Your task to perform on an android device: Clear all items from cart on newegg.com. Add "usb-c to usb-b" to the cart on newegg.com Image 0: 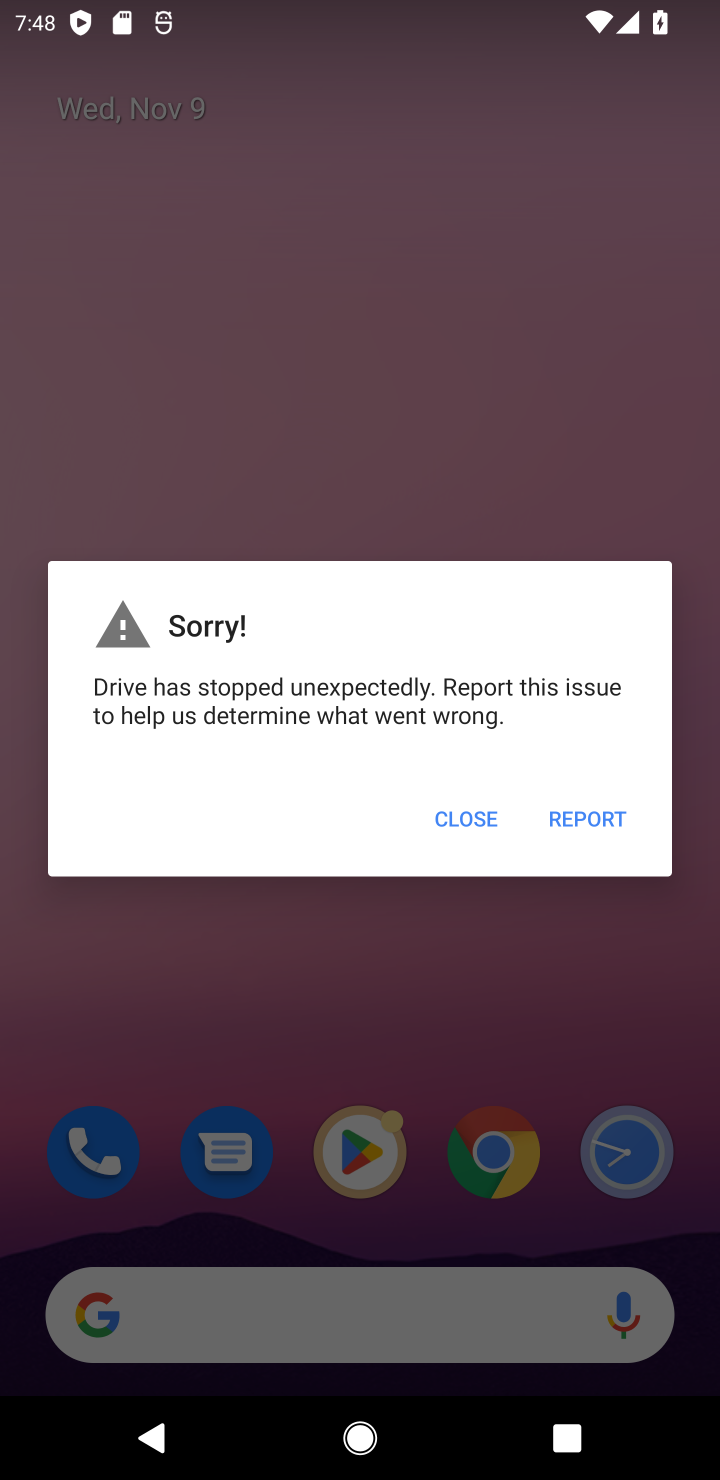
Step 0: press home button
Your task to perform on an android device: Clear all items from cart on newegg.com. Add "usb-c to usb-b" to the cart on newegg.com Image 1: 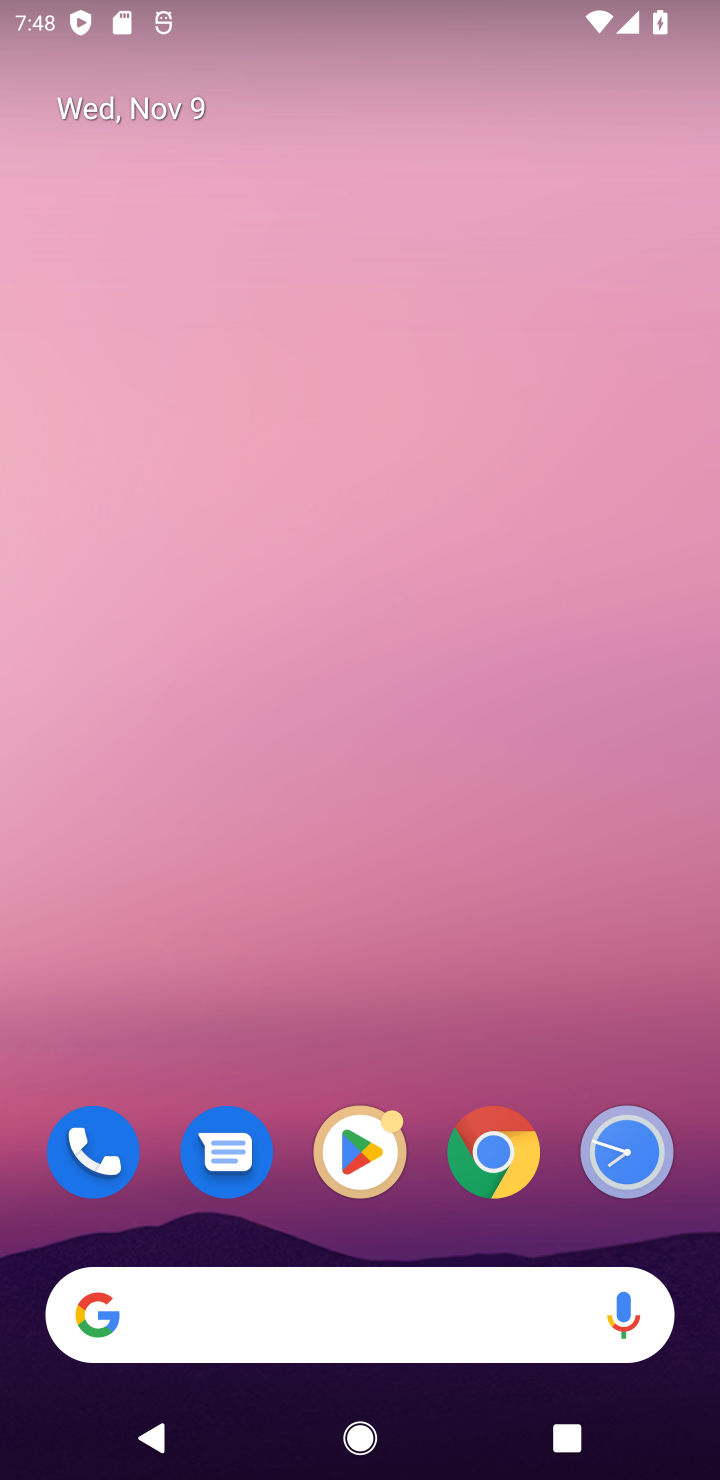
Step 1: click (489, 1150)
Your task to perform on an android device: Clear all items from cart on newegg.com. Add "usb-c to usb-b" to the cart on newegg.com Image 2: 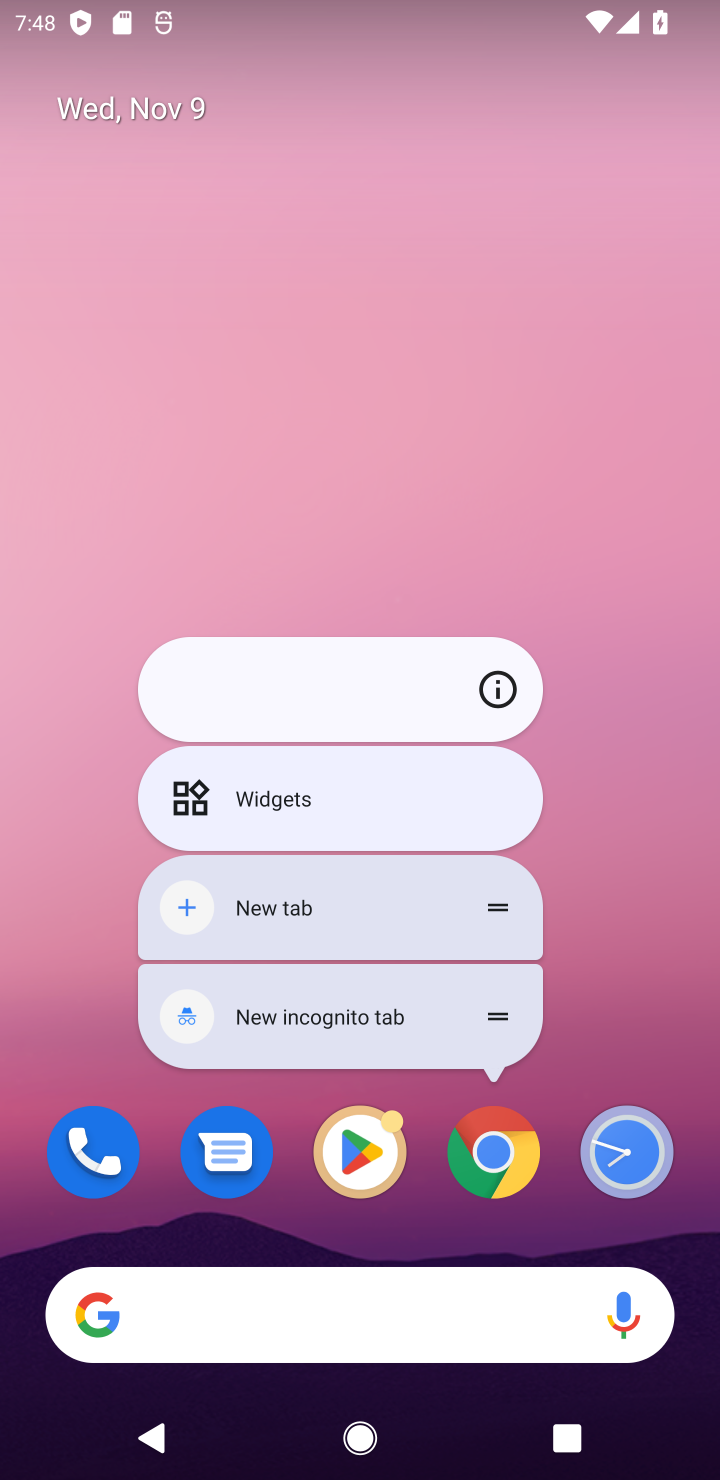
Step 2: click (489, 1159)
Your task to perform on an android device: Clear all items from cart on newegg.com. Add "usb-c to usb-b" to the cart on newegg.com Image 3: 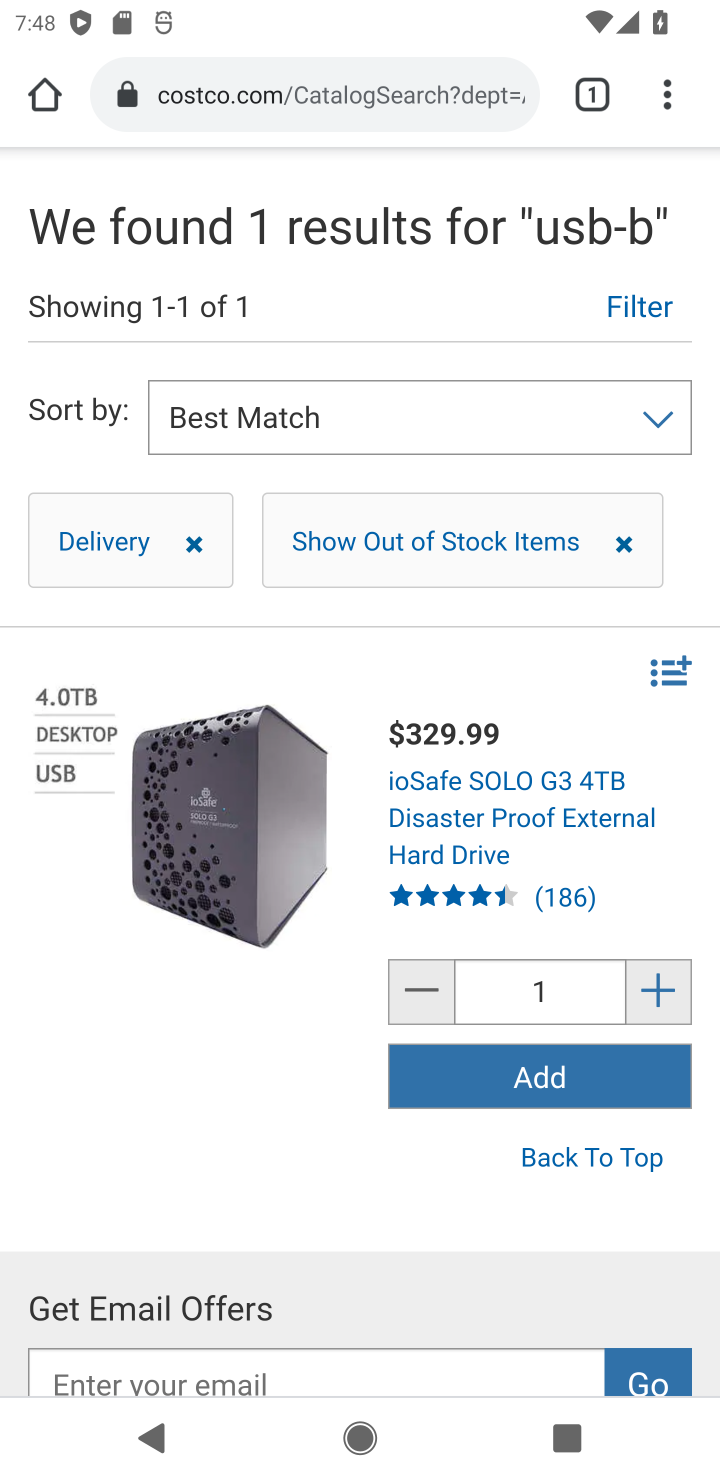
Step 3: click (408, 89)
Your task to perform on an android device: Clear all items from cart on newegg.com. Add "usb-c to usb-b" to the cart on newegg.com Image 4: 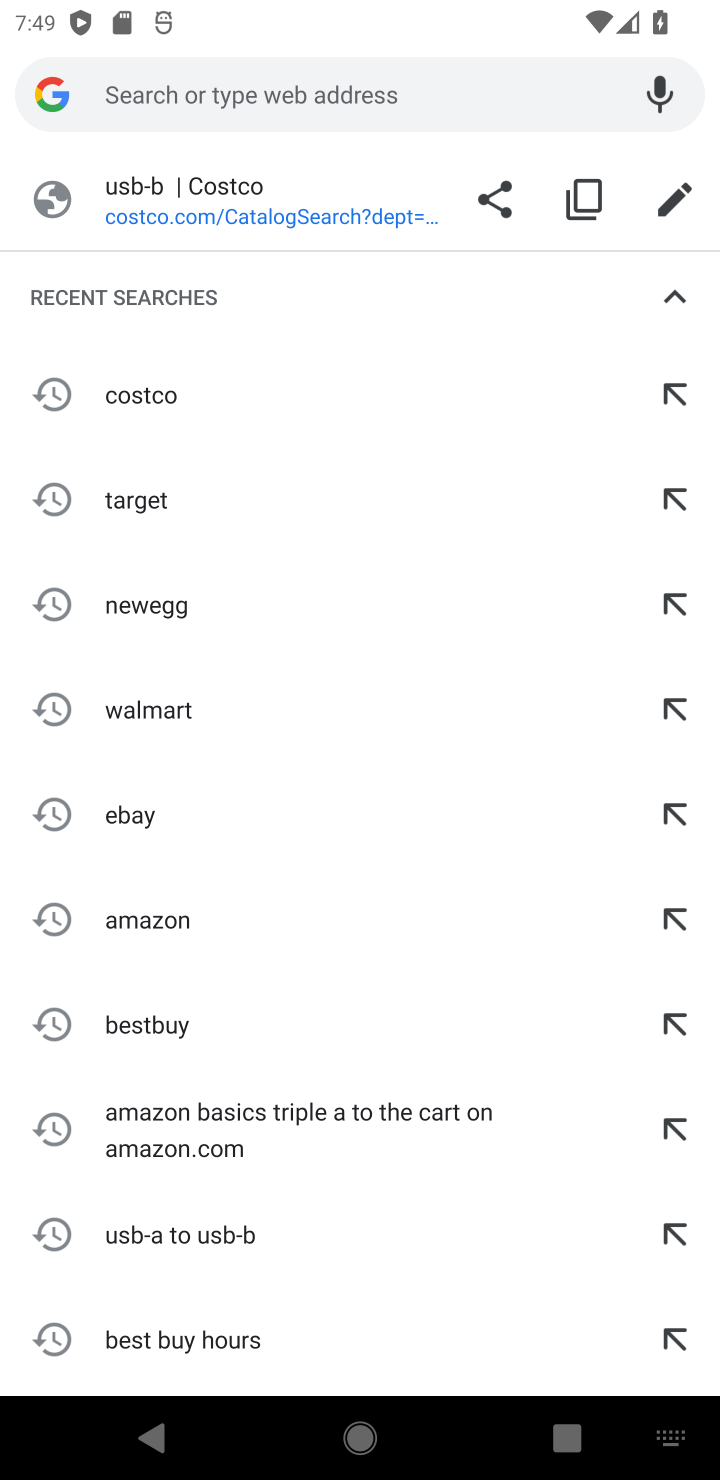
Step 4: click (152, 603)
Your task to perform on an android device: Clear all items from cart on newegg.com. Add "usb-c to usb-b" to the cart on newegg.com Image 5: 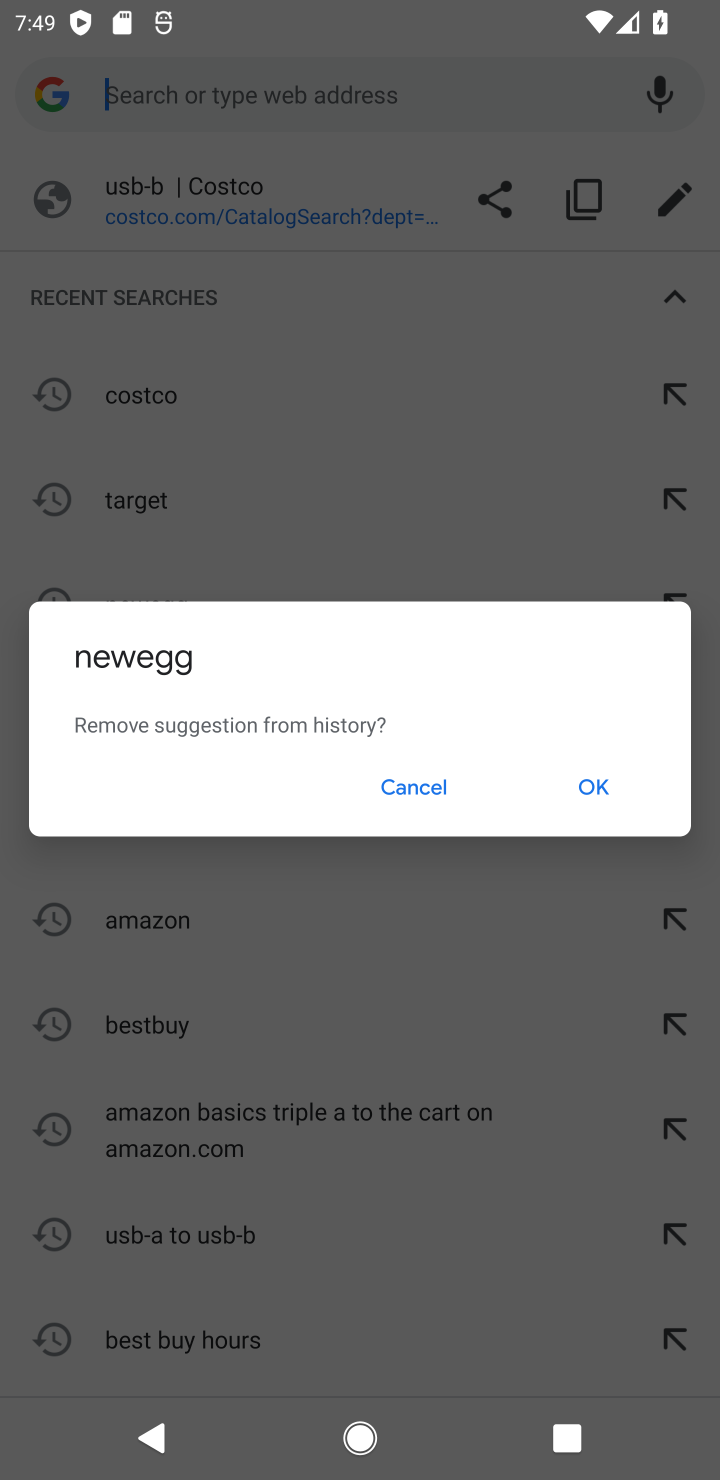
Step 5: click (419, 796)
Your task to perform on an android device: Clear all items from cart on newegg.com. Add "usb-c to usb-b" to the cart on newegg.com Image 6: 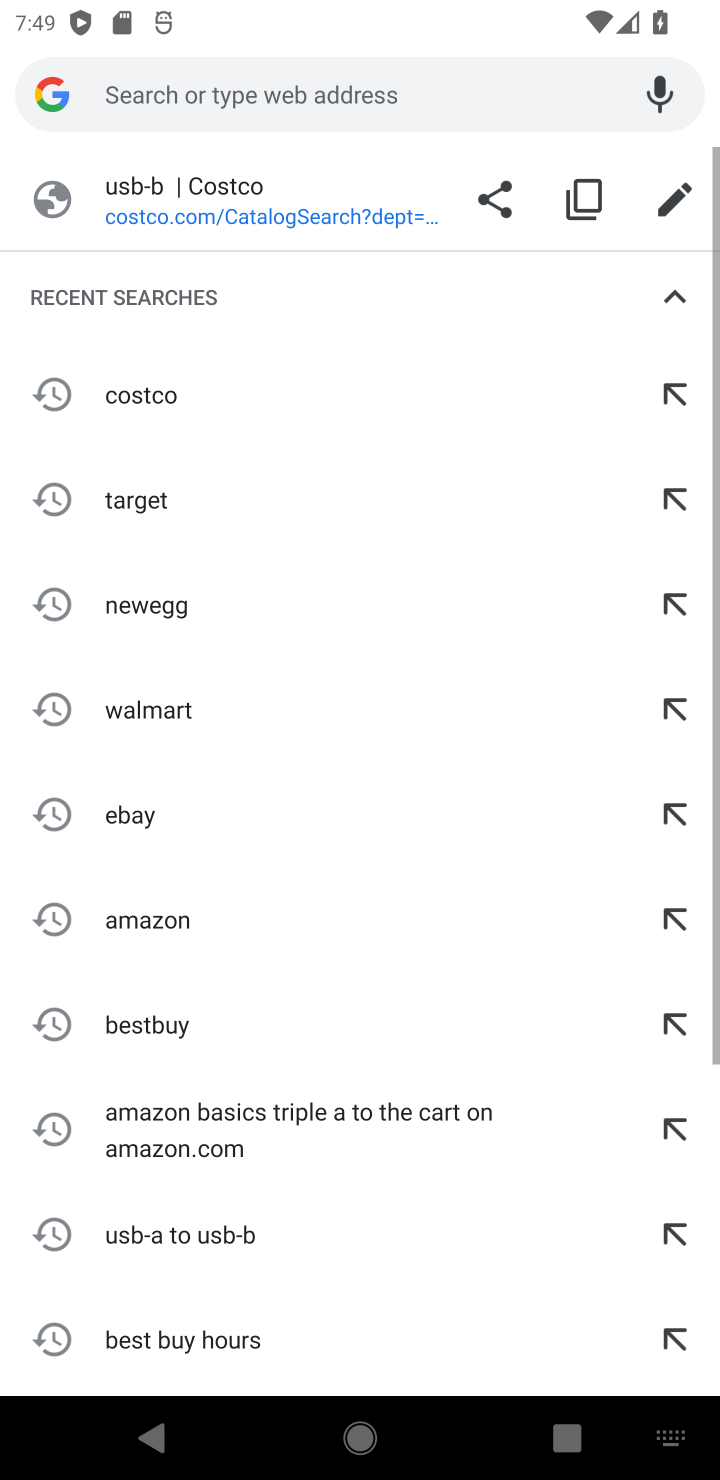
Step 6: click (130, 598)
Your task to perform on an android device: Clear all items from cart on newegg.com. Add "usb-c to usb-b" to the cart on newegg.com Image 7: 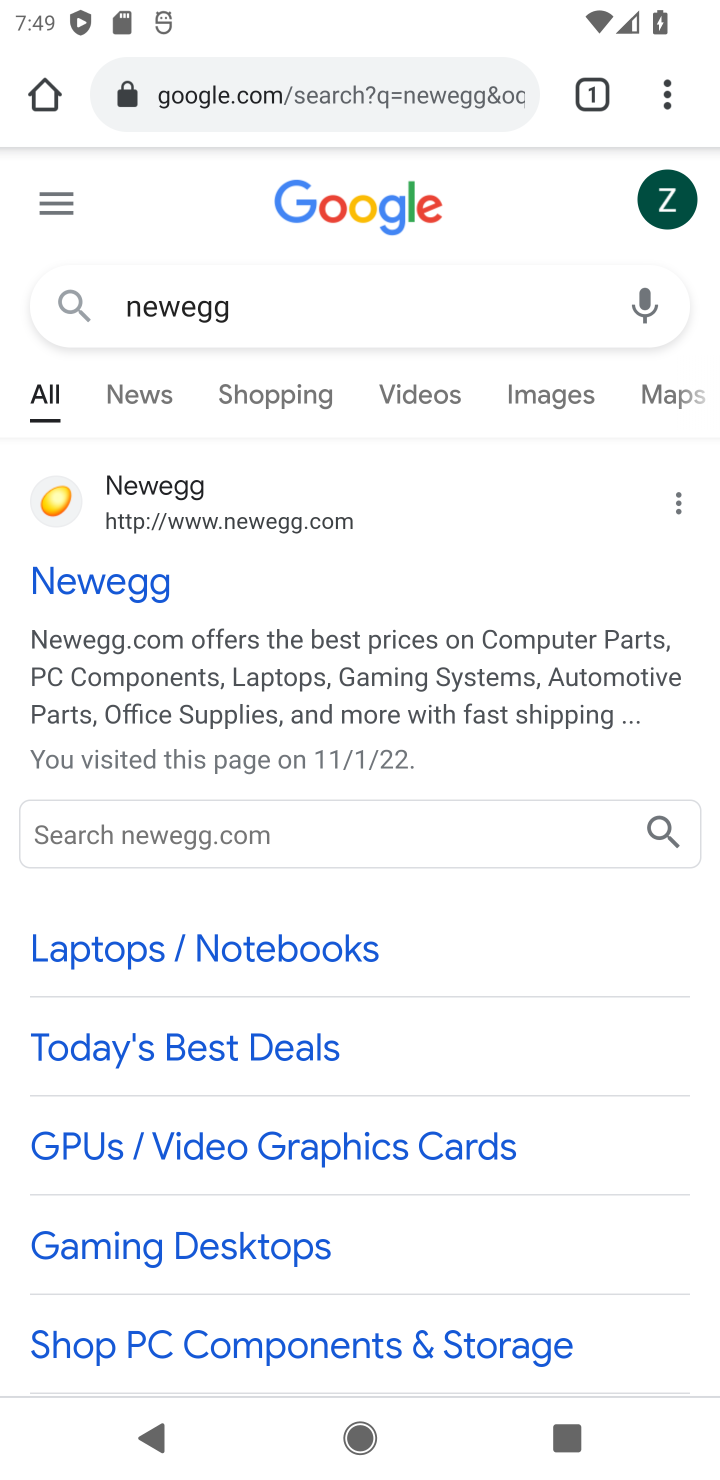
Step 7: click (110, 569)
Your task to perform on an android device: Clear all items from cart on newegg.com. Add "usb-c to usb-b" to the cart on newegg.com Image 8: 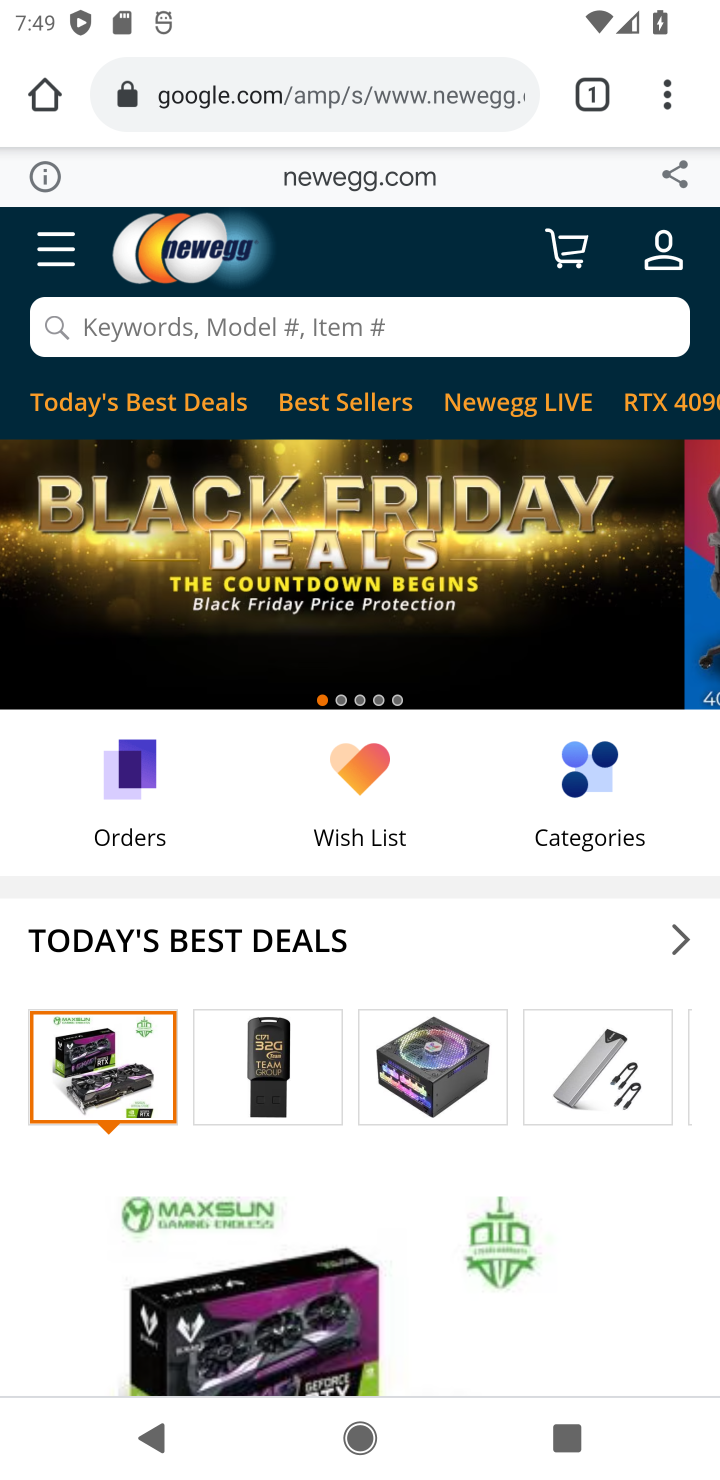
Step 8: click (280, 303)
Your task to perform on an android device: Clear all items from cart on newegg.com. Add "usb-c to usb-b" to the cart on newegg.com Image 9: 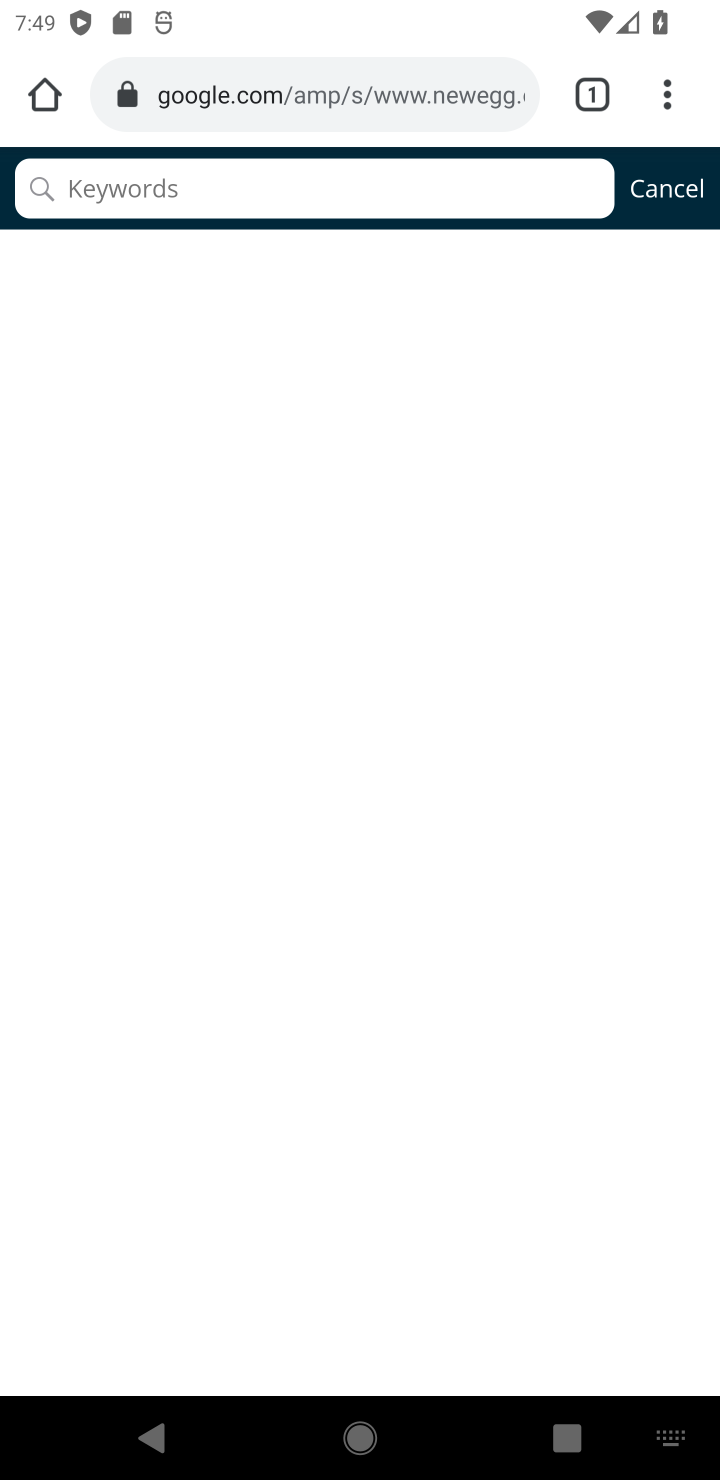
Step 9: type "usb-c to usb-b"
Your task to perform on an android device: Clear all items from cart on newegg.com. Add "usb-c to usb-b" to the cart on newegg.com Image 10: 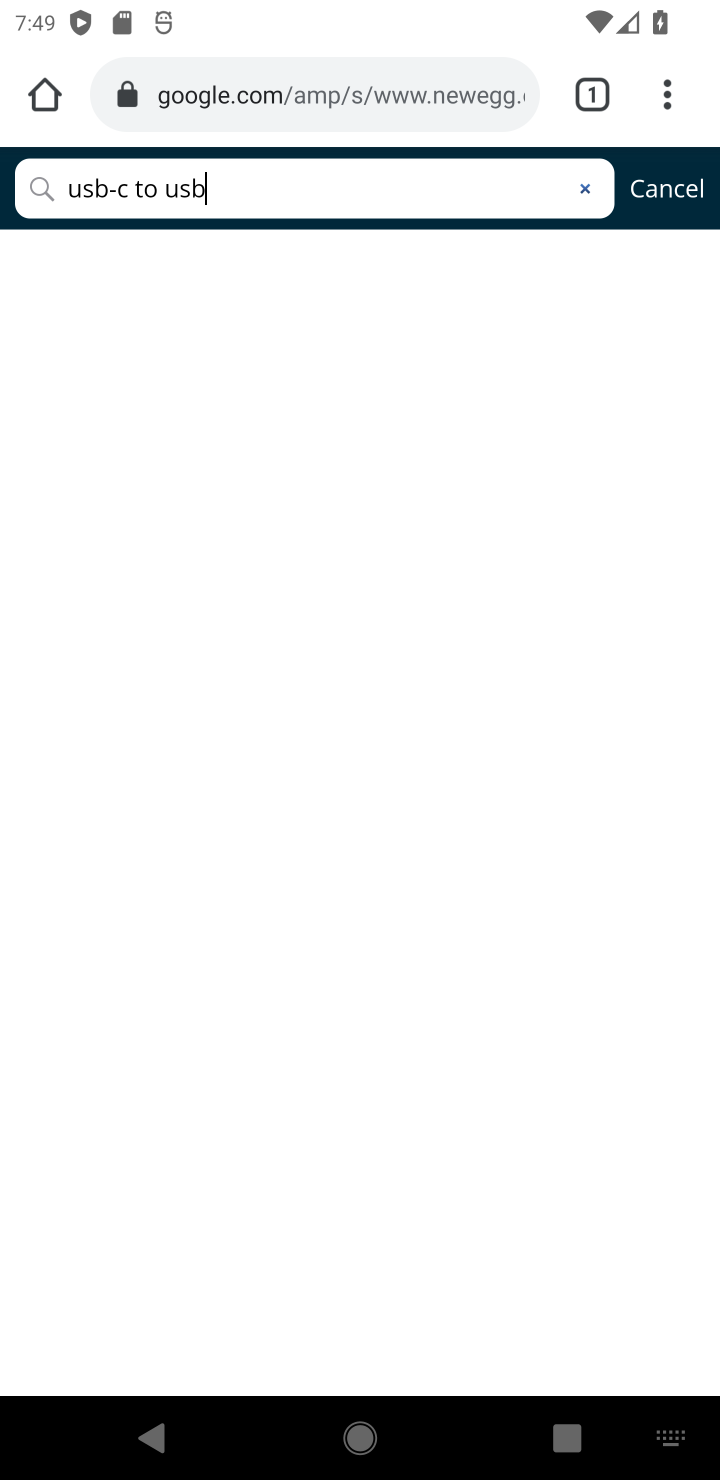
Step 10: press enter
Your task to perform on an android device: Clear all items from cart on newegg.com. Add "usb-c to usb-b" to the cart on newegg.com Image 11: 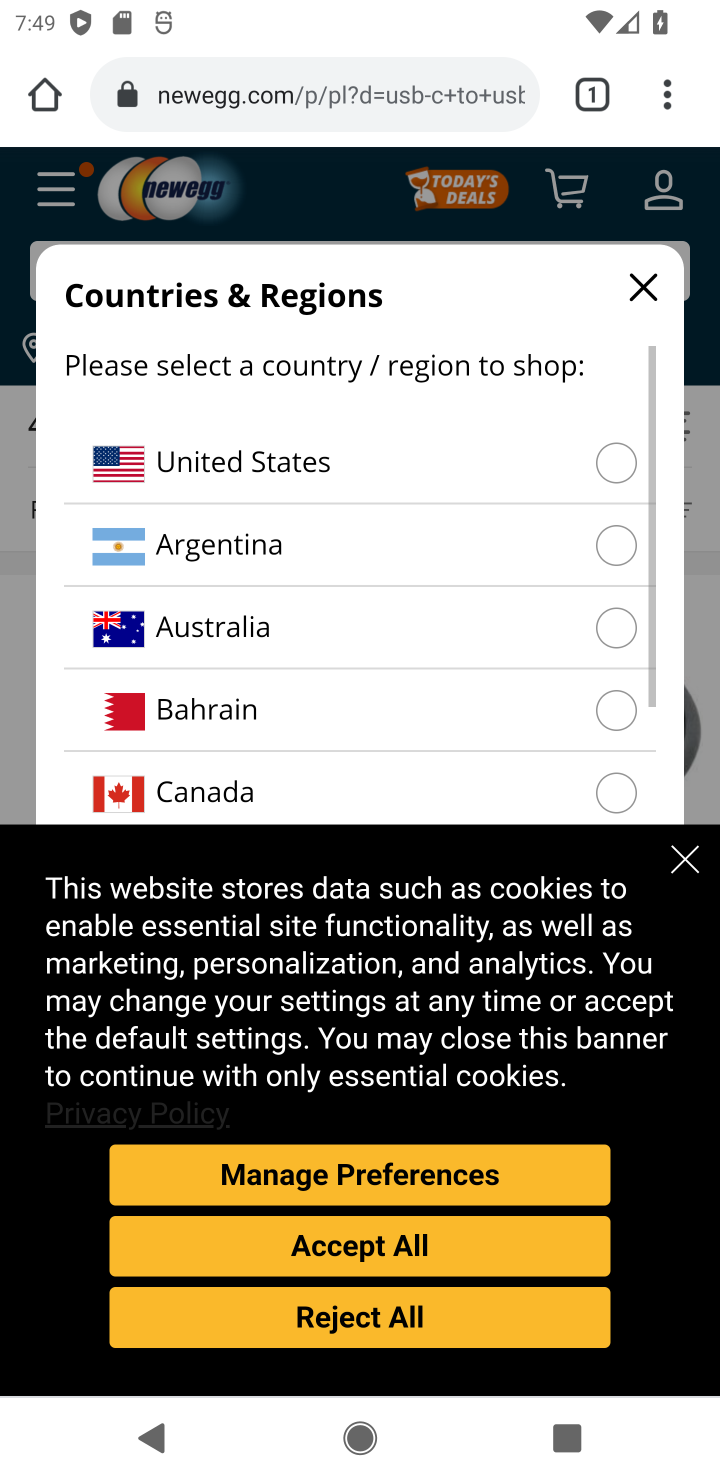
Step 11: click (691, 853)
Your task to perform on an android device: Clear all items from cart on newegg.com. Add "usb-c to usb-b" to the cart on newegg.com Image 12: 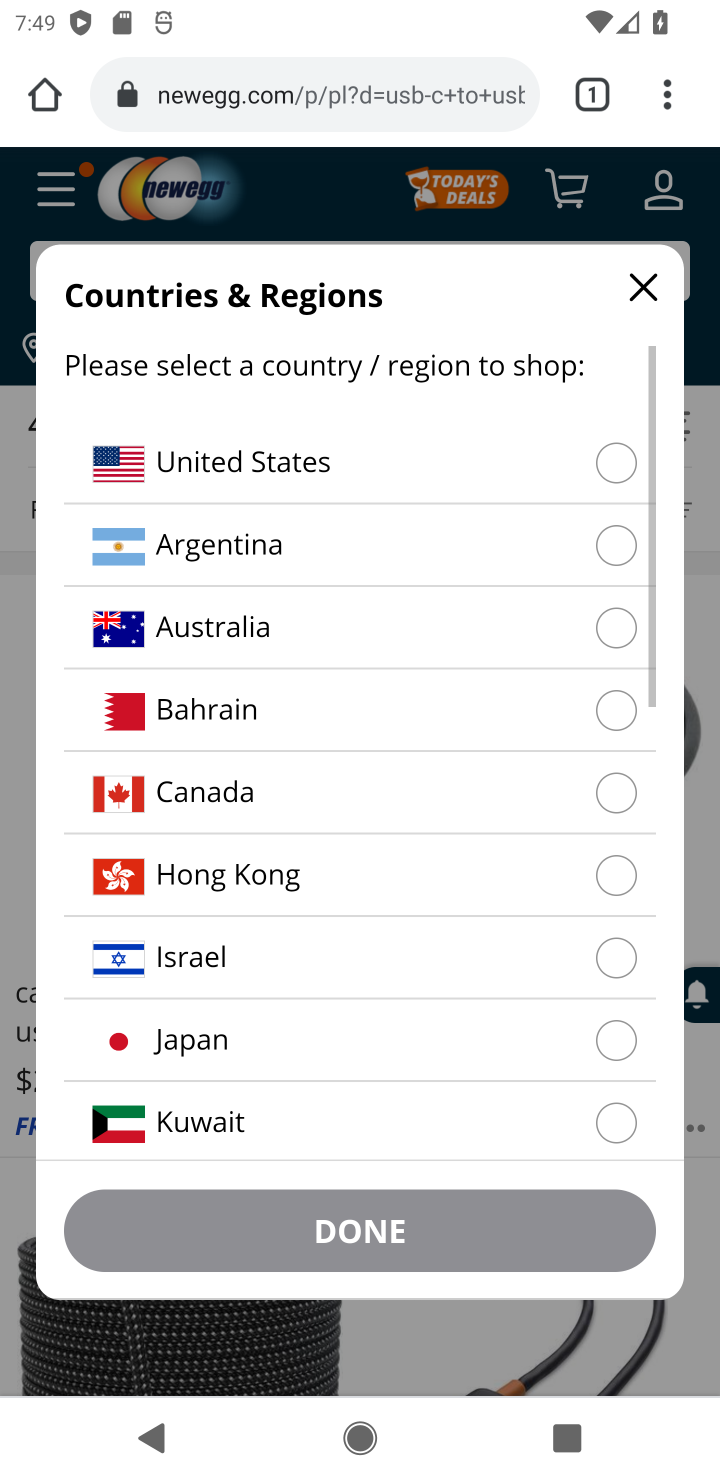
Step 12: click (640, 286)
Your task to perform on an android device: Clear all items from cart on newegg.com. Add "usb-c to usb-b" to the cart on newegg.com Image 13: 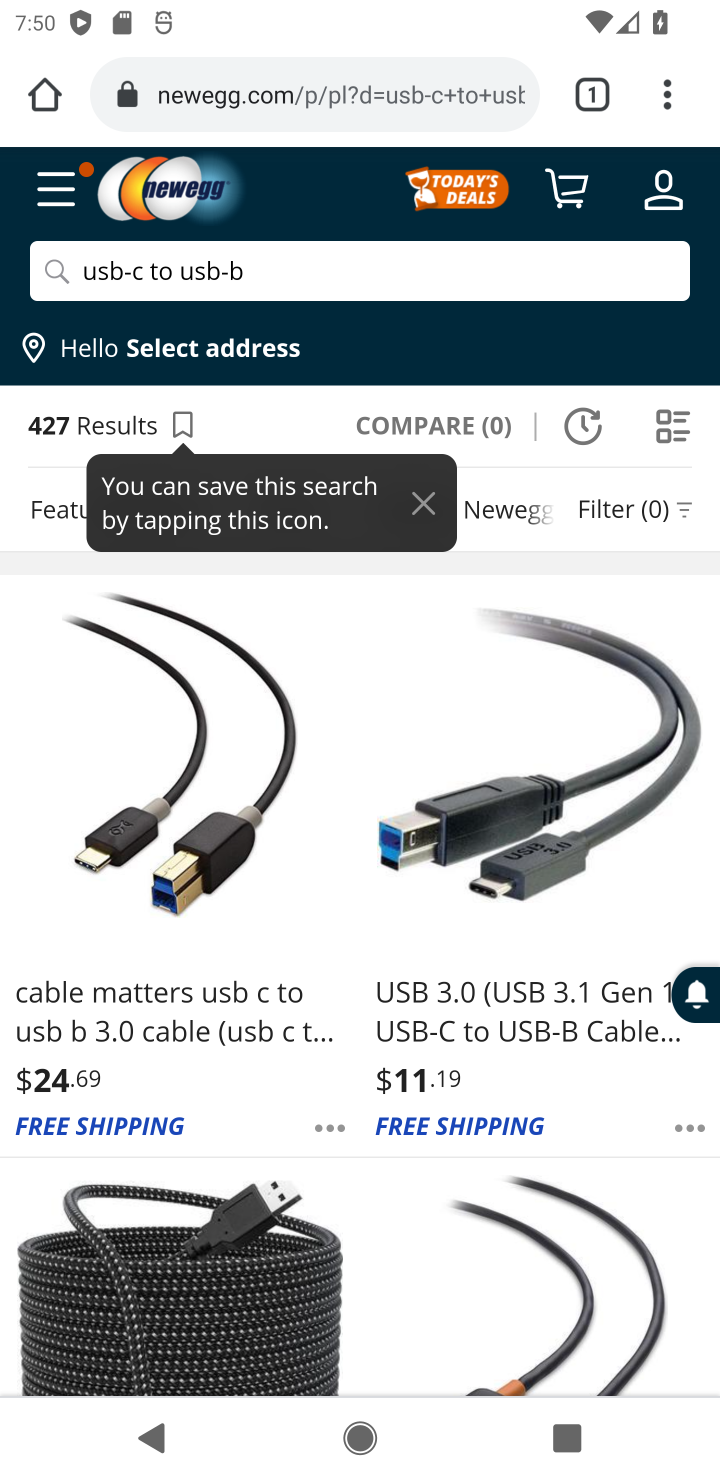
Step 13: click (120, 862)
Your task to perform on an android device: Clear all items from cart on newegg.com. Add "usb-c to usb-b" to the cart on newegg.com Image 14: 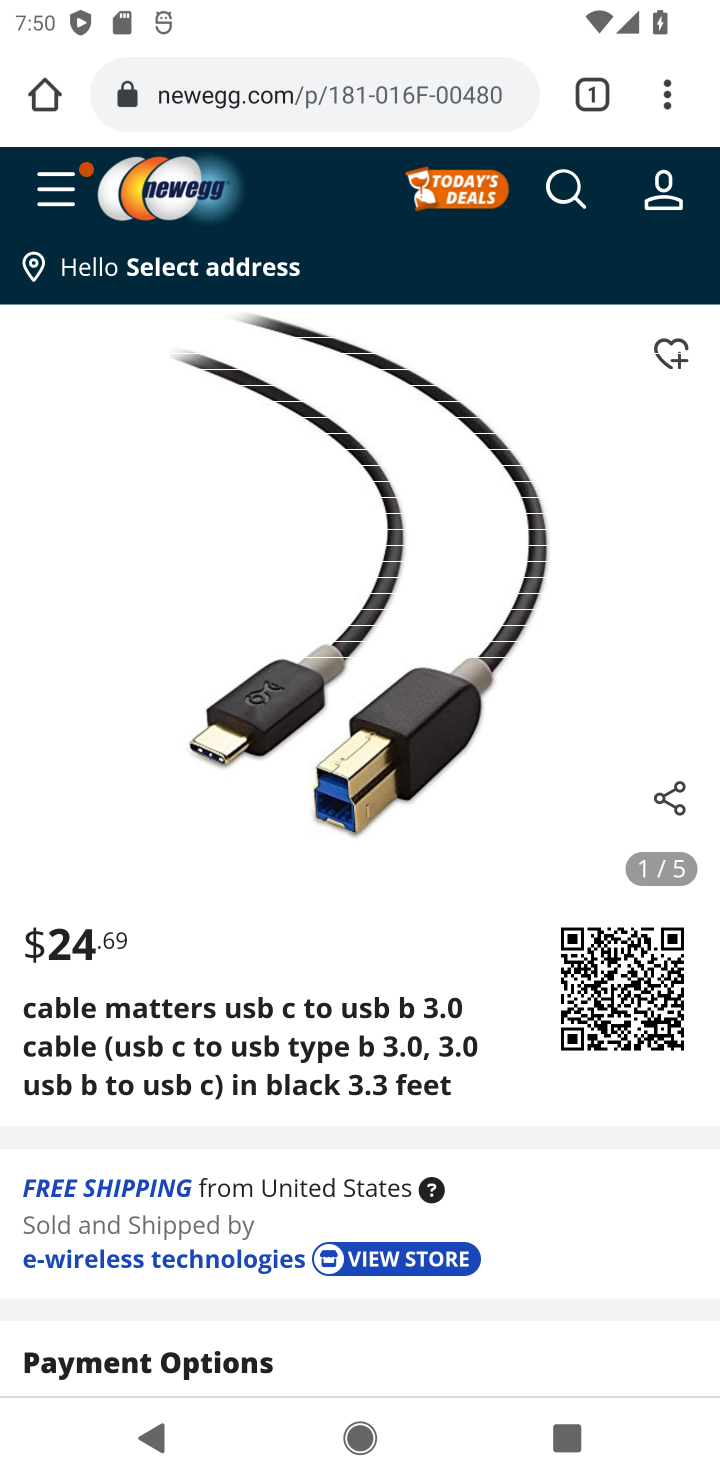
Step 14: drag from (252, 1155) to (508, 674)
Your task to perform on an android device: Clear all items from cart on newegg.com. Add "usb-c to usb-b" to the cart on newegg.com Image 15: 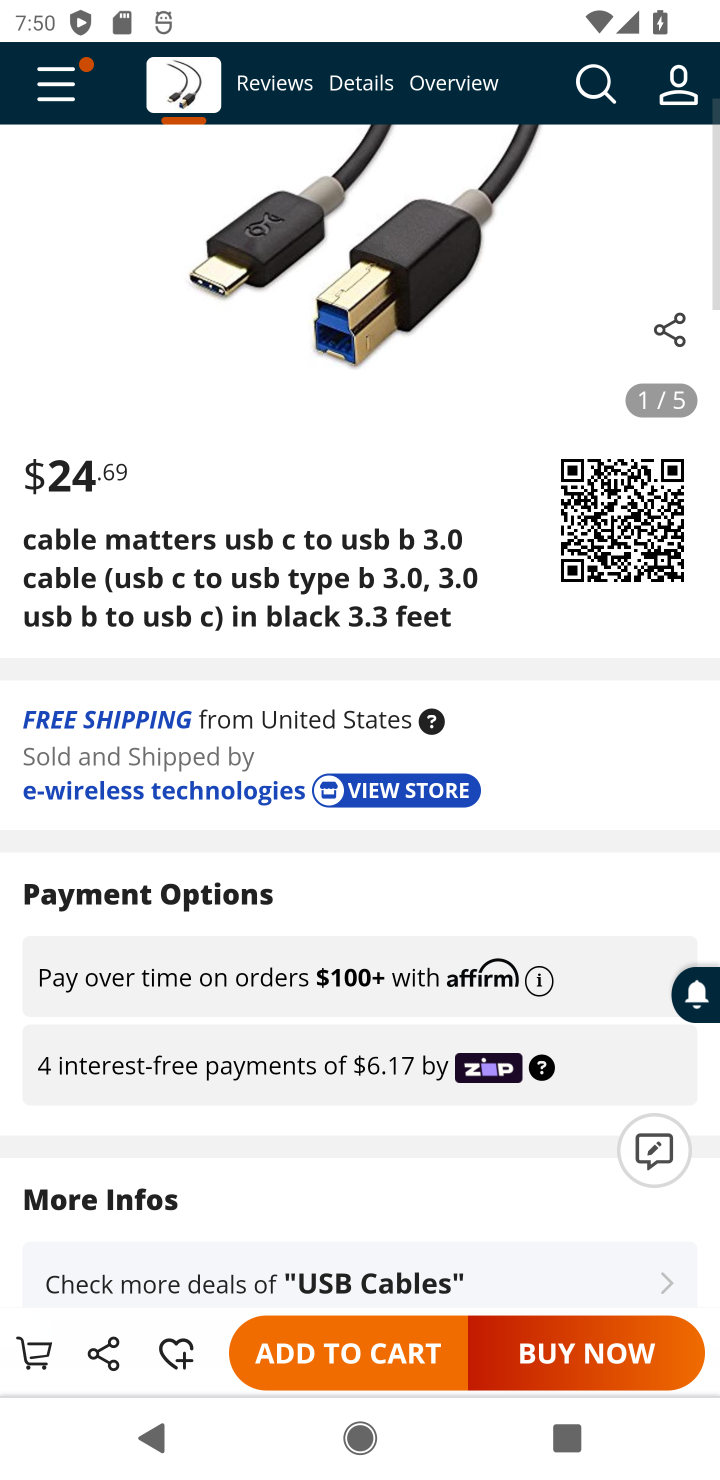
Step 15: click (331, 1349)
Your task to perform on an android device: Clear all items from cart on newegg.com. Add "usb-c to usb-b" to the cart on newegg.com Image 16: 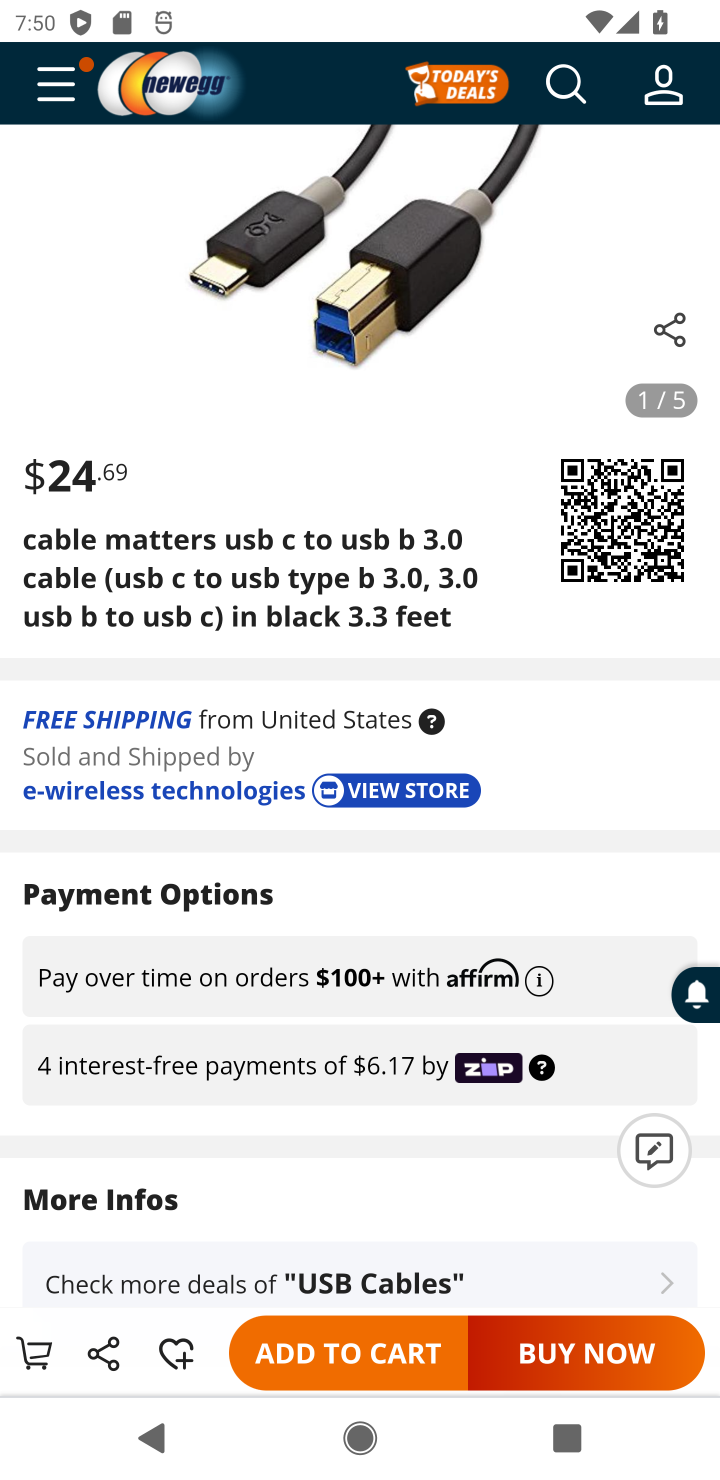
Step 16: click (399, 1344)
Your task to perform on an android device: Clear all items from cart on newegg.com. Add "usb-c to usb-b" to the cart on newegg.com Image 17: 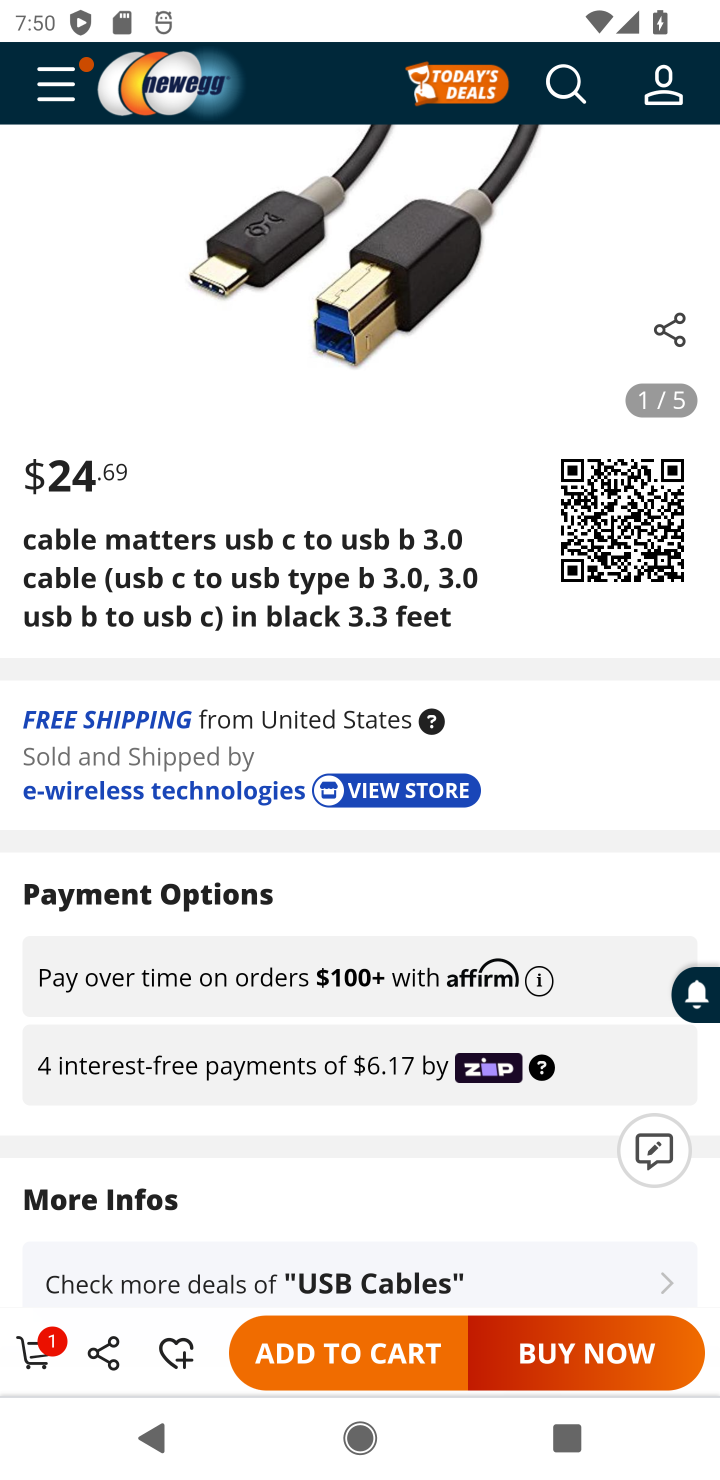
Step 17: click (35, 1341)
Your task to perform on an android device: Clear all items from cart on newegg.com. Add "usb-c to usb-b" to the cart on newegg.com Image 18: 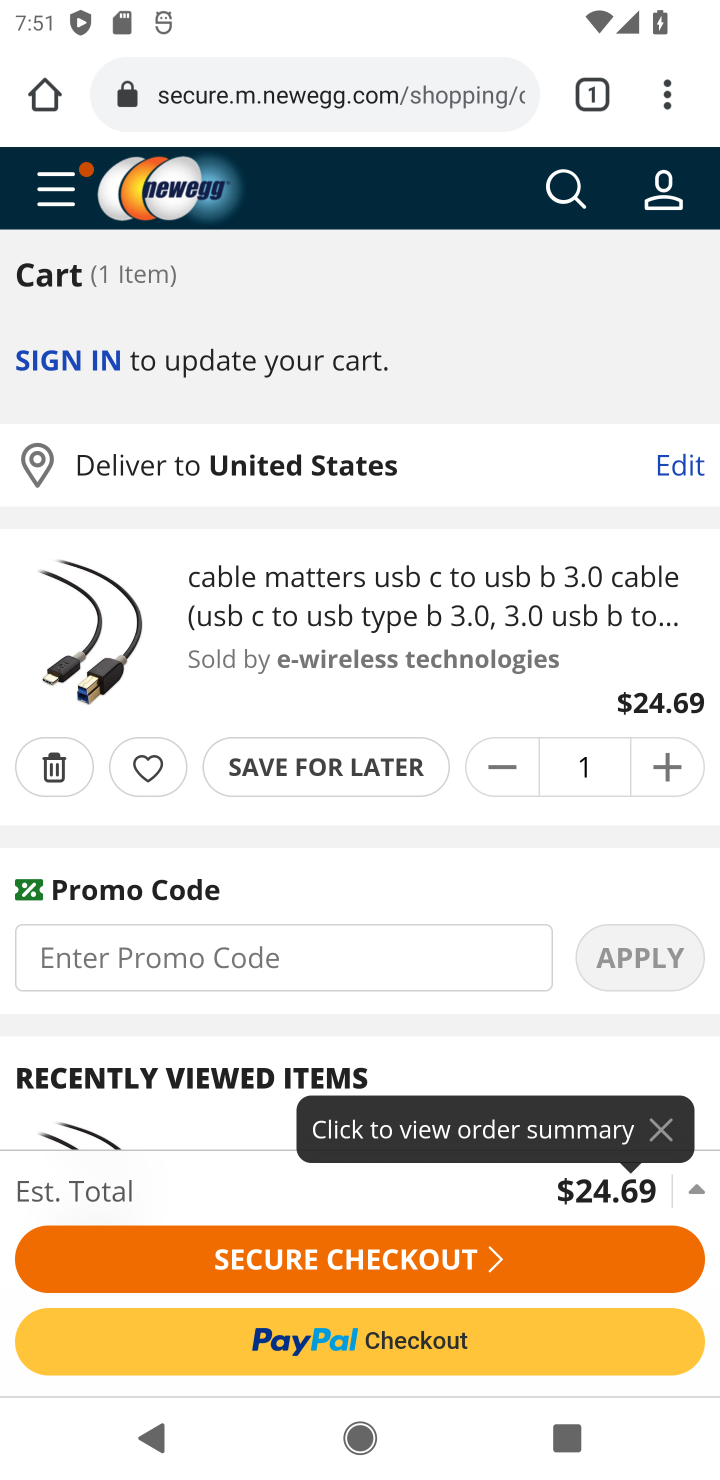
Step 18: task complete